Your task to perform on an android device: What is the news today? Image 0: 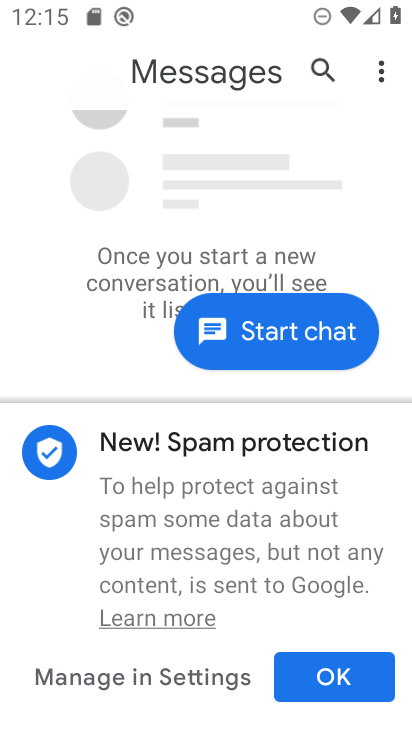
Step 0: press home button
Your task to perform on an android device: What is the news today? Image 1: 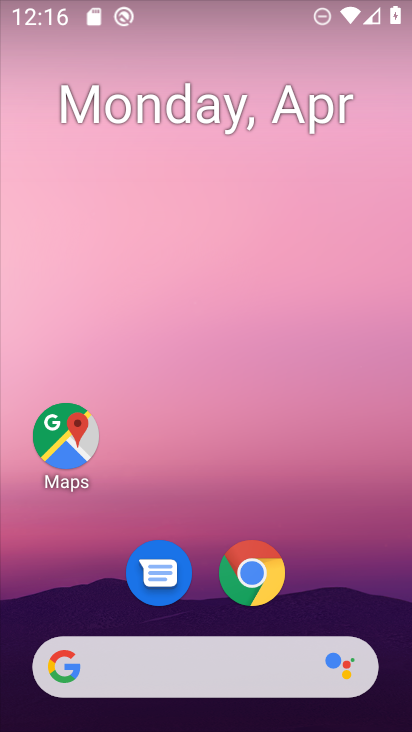
Step 1: task complete